Your task to perform on an android device: open chrome privacy settings Image 0: 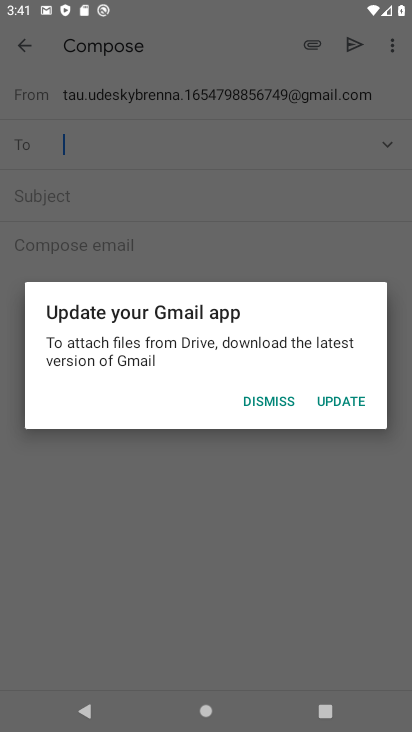
Step 0: press home button
Your task to perform on an android device: open chrome privacy settings Image 1: 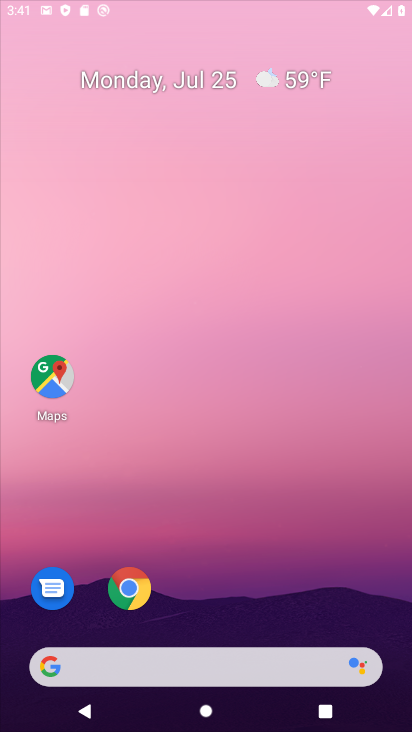
Step 1: drag from (218, 612) to (238, 0)
Your task to perform on an android device: open chrome privacy settings Image 2: 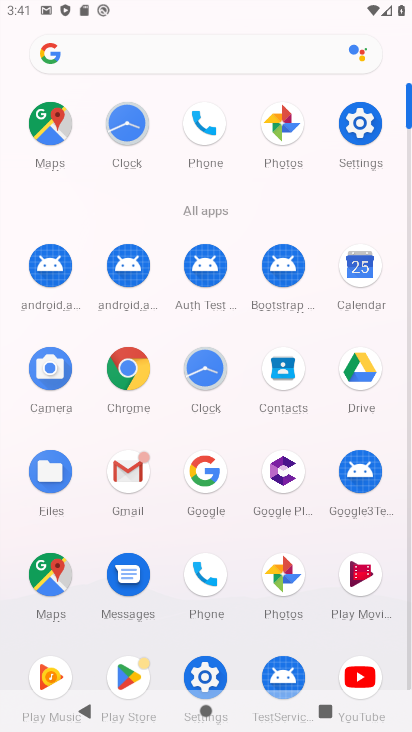
Step 2: click (271, 561)
Your task to perform on an android device: open chrome privacy settings Image 3: 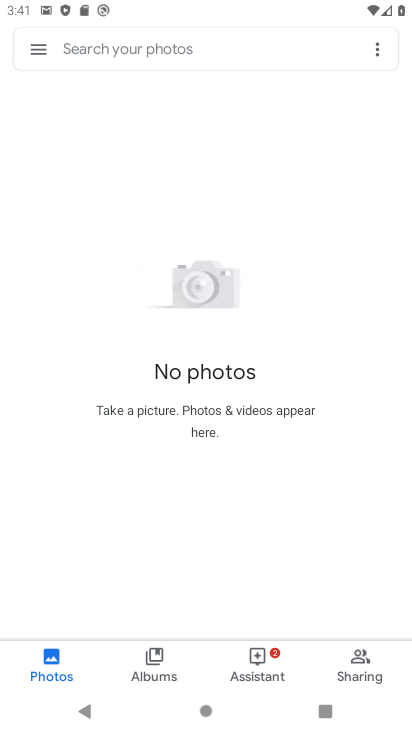
Step 3: press home button
Your task to perform on an android device: open chrome privacy settings Image 4: 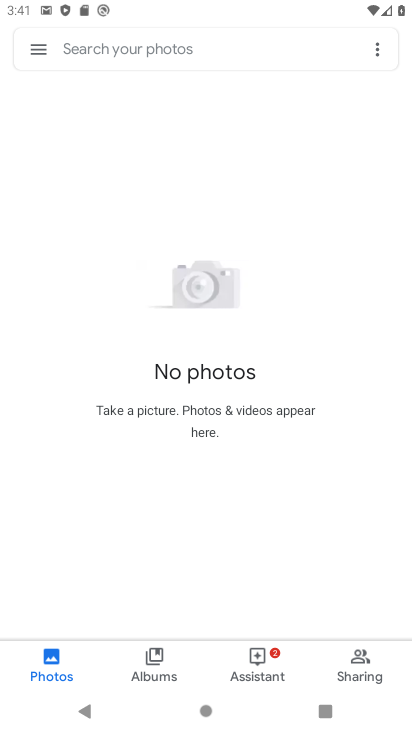
Step 4: click (307, 19)
Your task to perform on an android device: open chrome privacy settings Image 5: 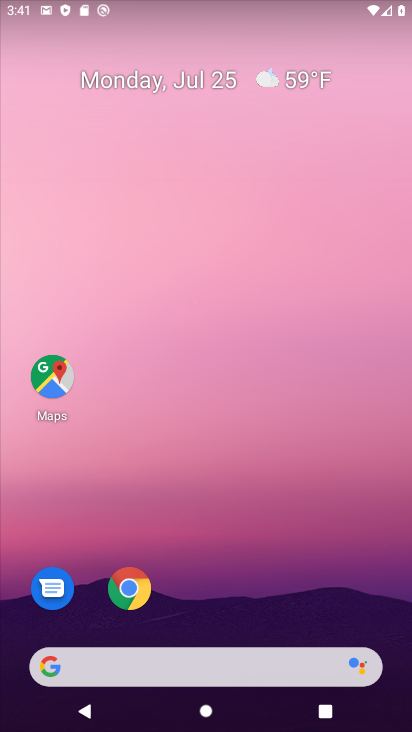
Step 5: drag from (295, 587) to (341, 9)
Your task to perform on an android device: open chrome privacy settings Image 6: 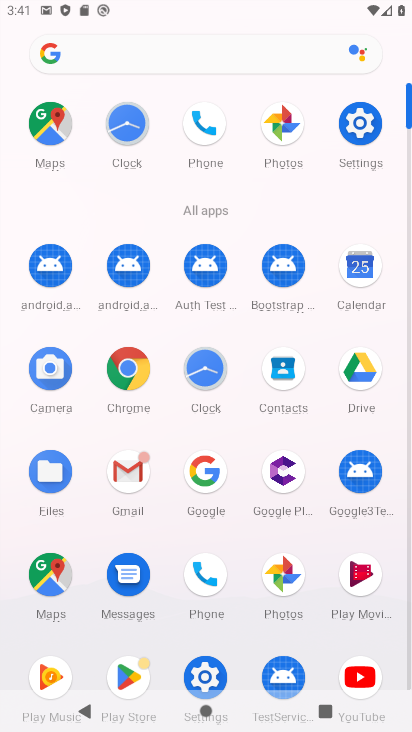
Step 6: click (122, 356)
Your task to perform on an android device: open chrome privacy settings Image 7: 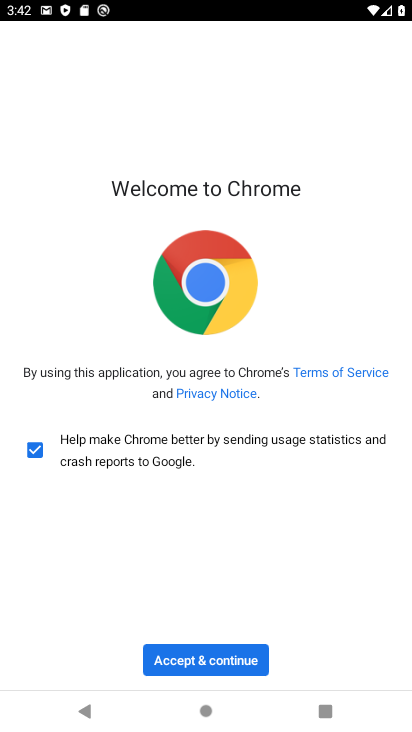
Step 7: click (198, 663)
Your task to perform on an android device: open chrome privacy settings Image 8: 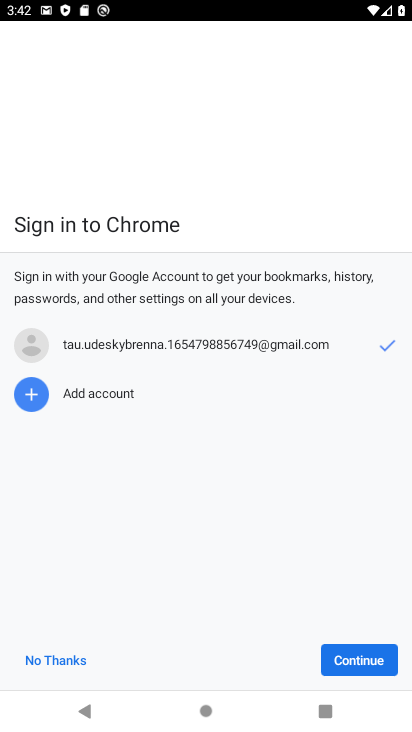
Step 8: click (328, 672)
Your task to perform on an android device: open chrome privacy settings Image 9: 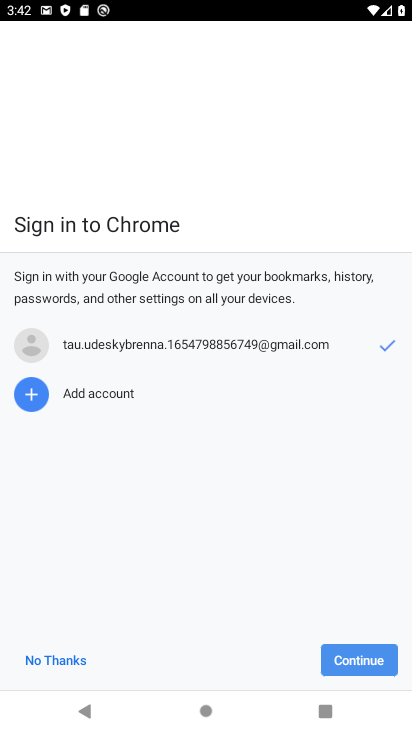
Step 9: click (329, 669)
Your task to perform on an android device: open chrome privacy settings Image 10: 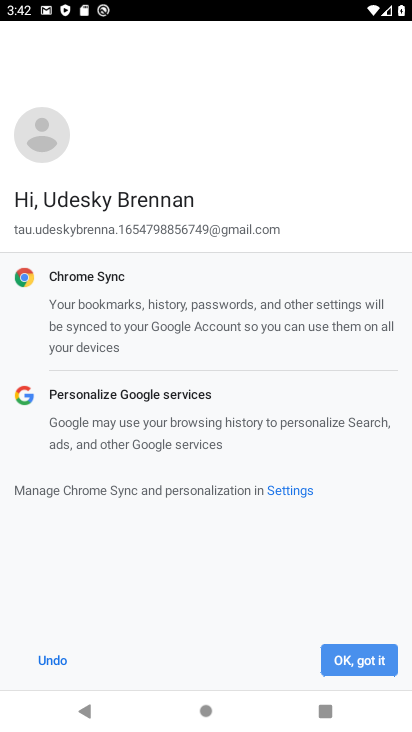
Step 10: click (329, 669)
Your task to perform on an android device: open chrome privacy settings Image 11: 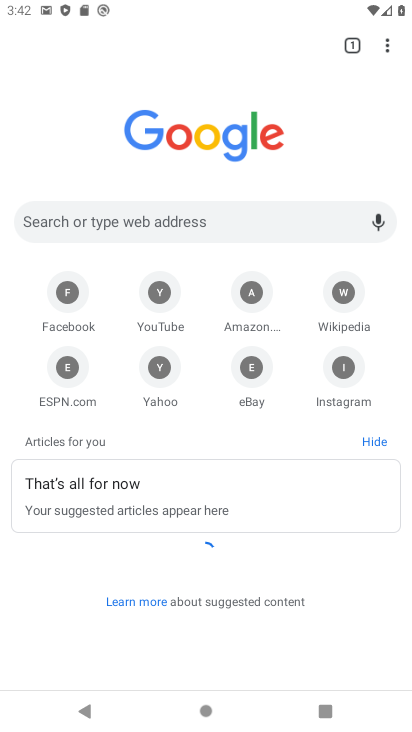
Step 11: drag from (392, 49) to (247, 375)
Your task to perform on an android device: open chrome privacy settings Image 12: 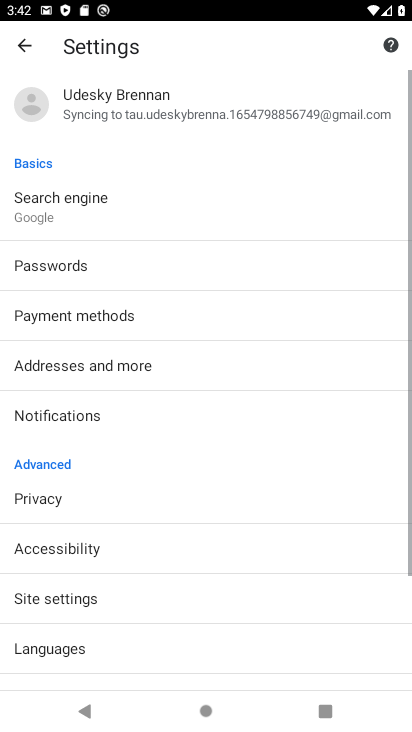
Step 12: click (95, 504)
Your task to perform on an android device: open chrome privacy settings Image 13: 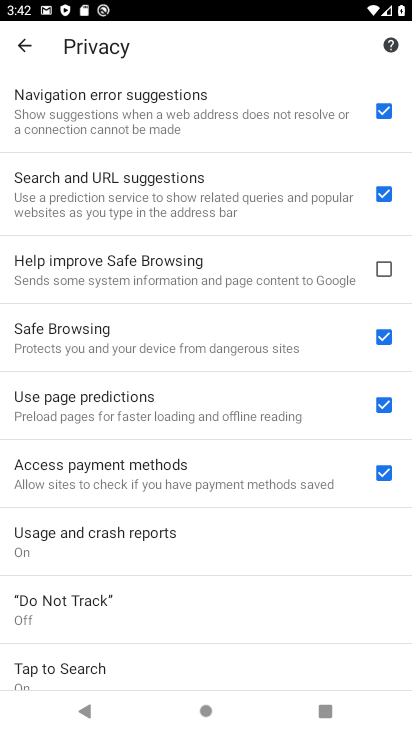
Step 13: task complete